Your task to perform on an android device: install app "Truecaller" Image 0: 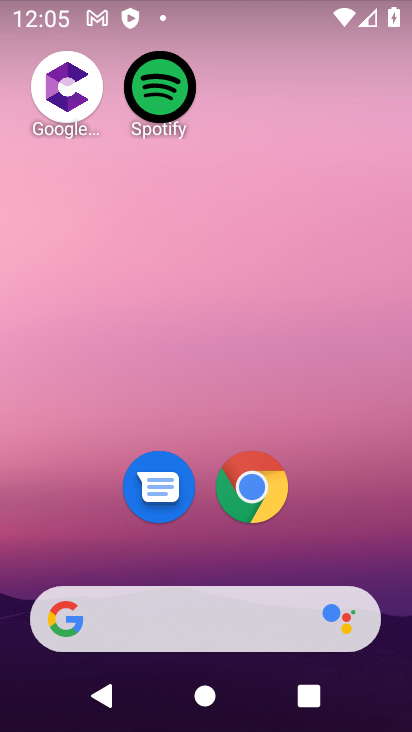
Step 0: drag from (238, 630) to (237, 218)
Your task to perform on an android device: install app "Truecaller" Image 1: 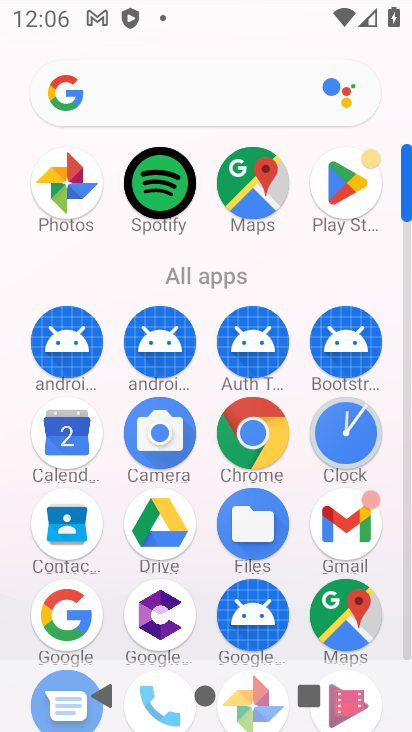
Step 1: click (343, 198)
Your task to perform on an android device: install app "Truecaller" Image 2: 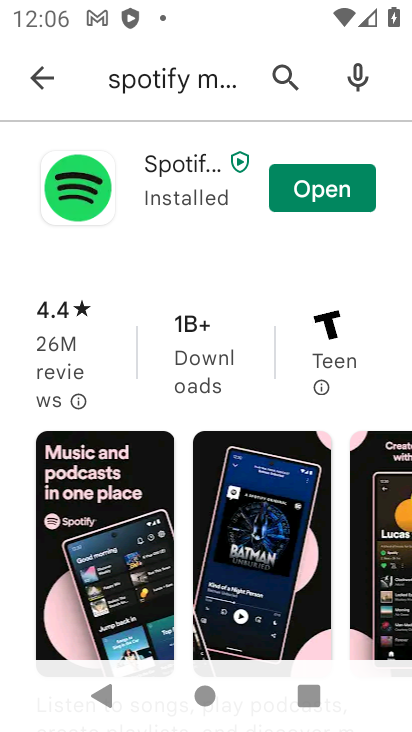
Step 2: click (34, 84)
Your task to perform on an android device: install app "Truecaller" Image 3: 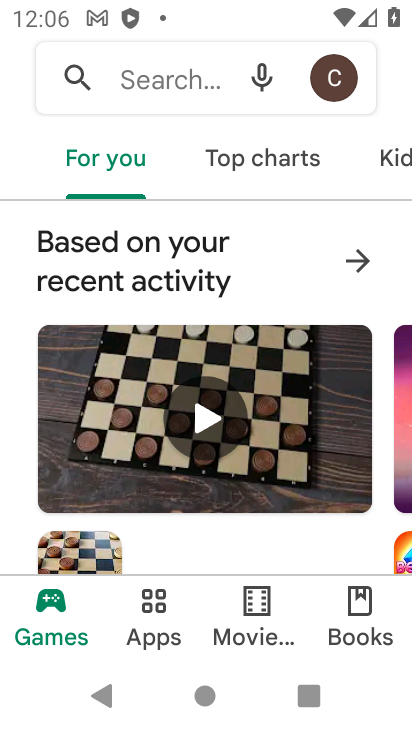
Step 3: click (153, 67)
Your task to perform on an android device: install app "Truecaller" Image 4: 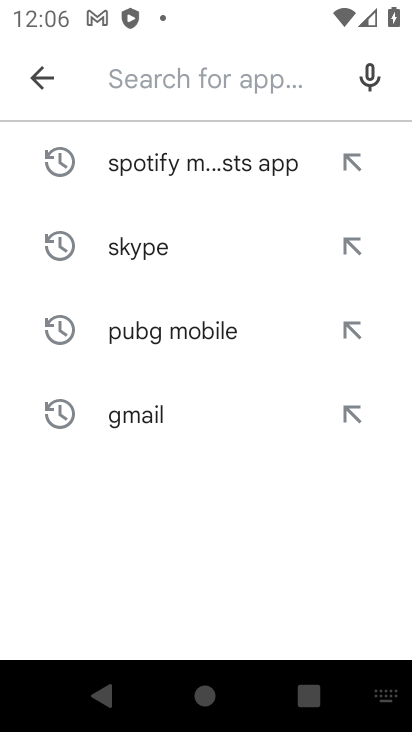
Step 4: type "Truecaller"
Your task to perform on an android device: install app "Truecaller" Image 5: 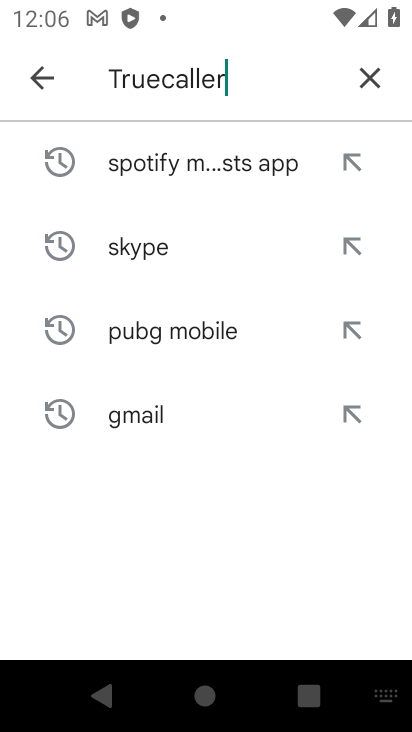
Step 5: type ""
Your task to perform on an android device: install app "Truecaller" Image 6: 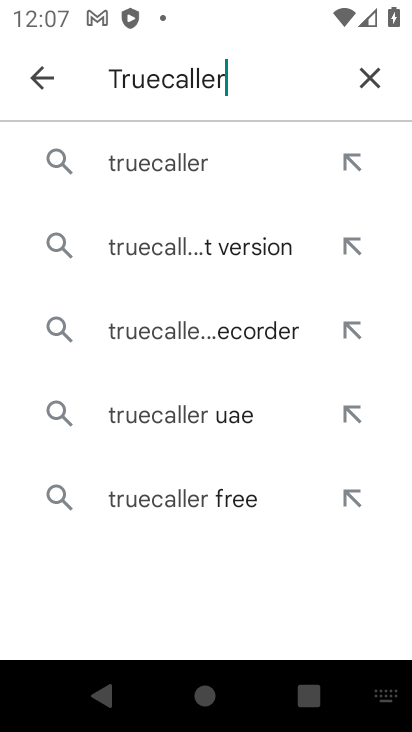
Step 6: click (124, 179)
Your task to perform on an android device: install app "Truecaller" Image 7: 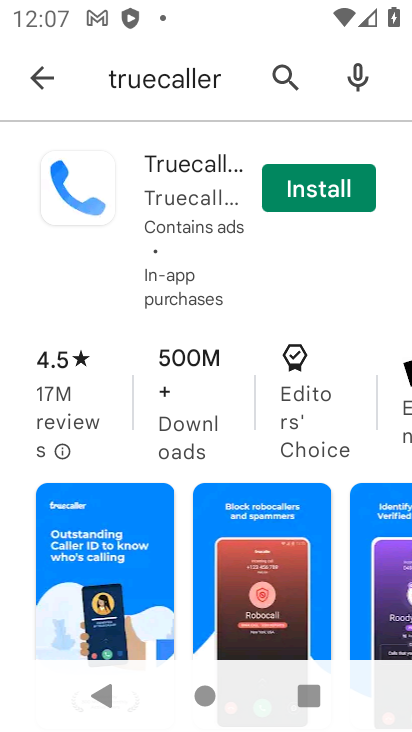
Step 7: click (339, 202)
Your task to perform on an android device: install app "Truecaller" Image 8: 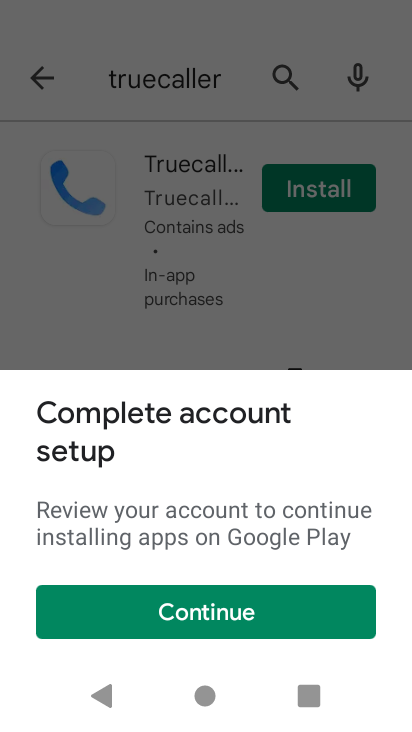
Step 8: click (250, 606)
Your task to perform on an android device: install app "Truecaller" Image 9: 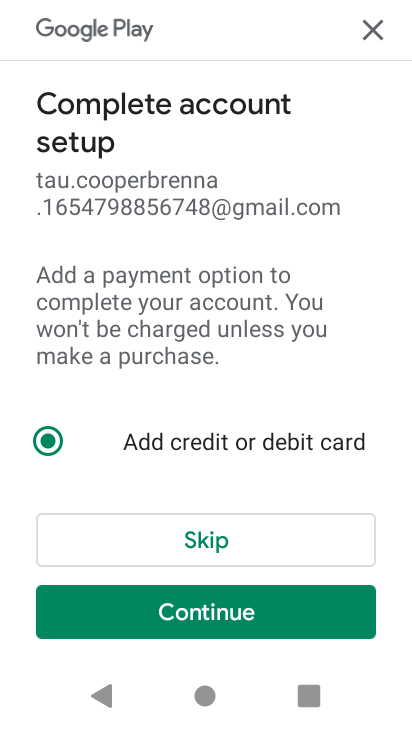
Step 9: click (210, 553)
Your task to perform on an android device: install app "Truecaller" Image 10: 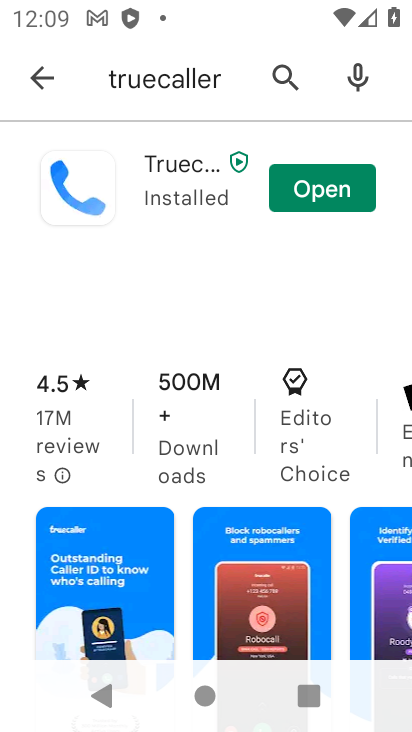
Step 10: task complete